Your task to perform on an android device: toggle notifications settings in the gmail app Image 0: 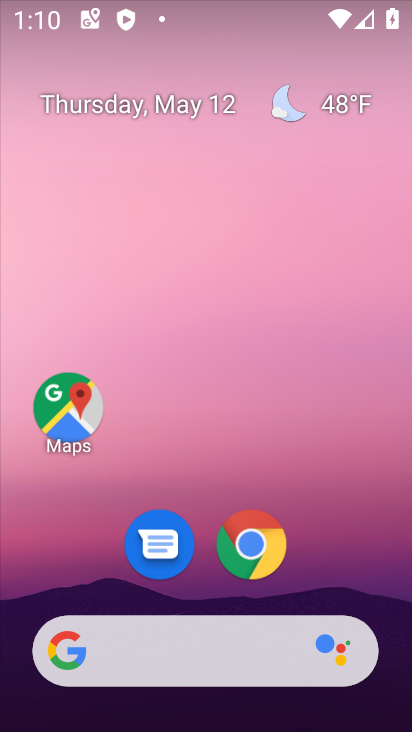
Step 0: drag from (352, 548) to (290, 13)
Your task to perform on an android device: toggle notifications settings in the gmail app Image 1: 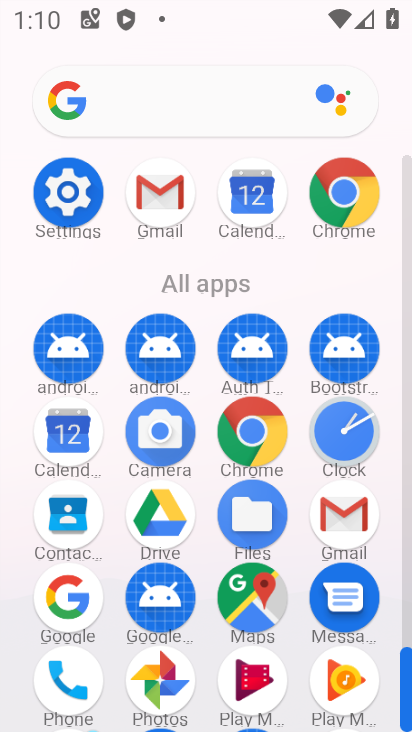
Step 1: drag from (19, 511) to (14, 315)
Your task to perform on an android device: toggle notifications settings in the gmail app Image 2: 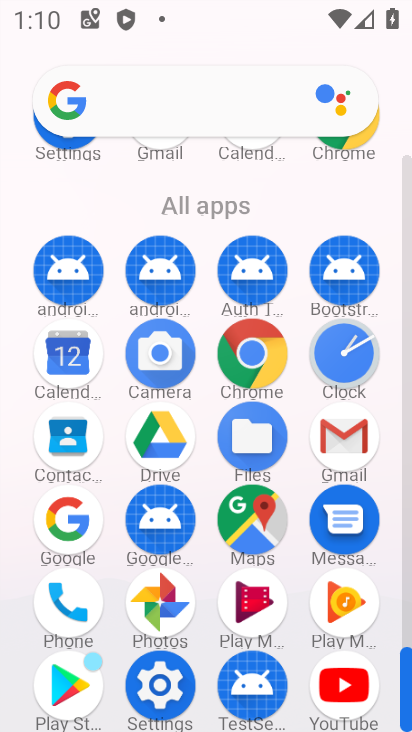
Step 2: click (345, 430)
Your task to perform on an android device: toggle notifications settings in the gmail app Image 3: 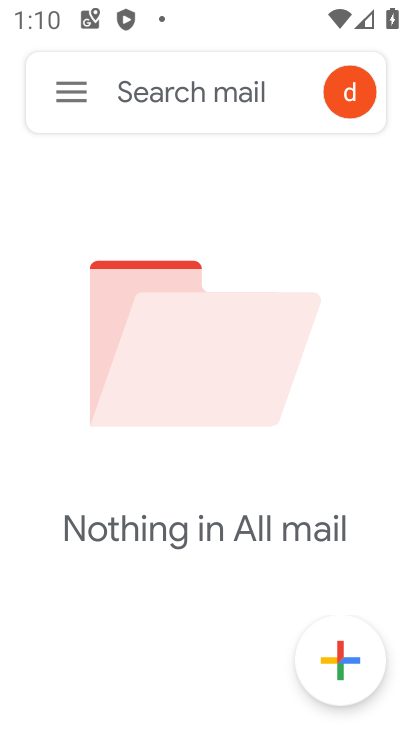
Step 3: click (60, 96)
Your task to perform on an android device: toggle notifications settings in the gmail app Image 4: 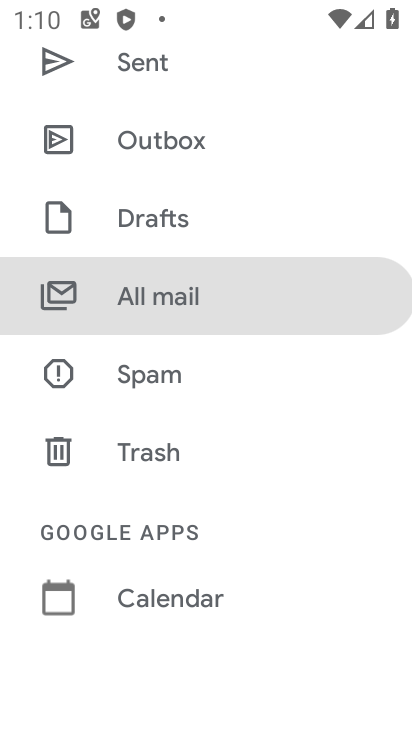
Step 4: drag from (257, 435) to (257, 123)
Your task to perform on an android device: toggle notifications settings in the gmail app Image 5: 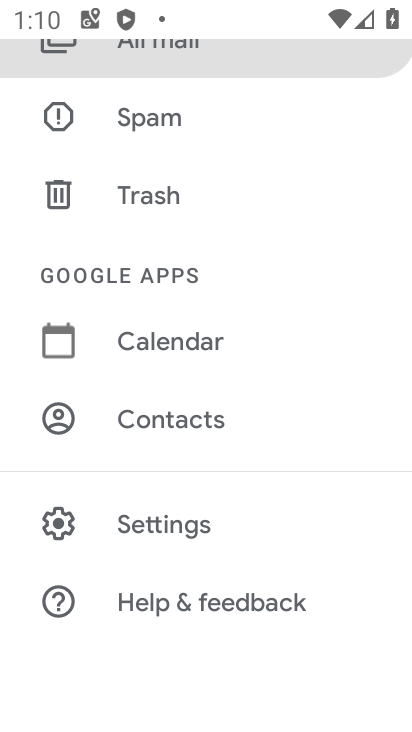
Step 5: drag from (227, 434) to (231, 134)
Your task to perform on an android device: toggle notifications settings in the gmail app Image 6: 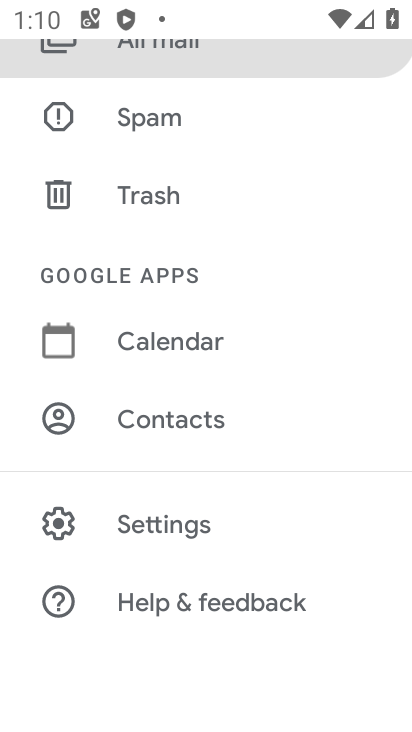
Step 6: click (152, 527)
Your task to perform on an android device: toggle notifications settings in the gmail app Image 7: 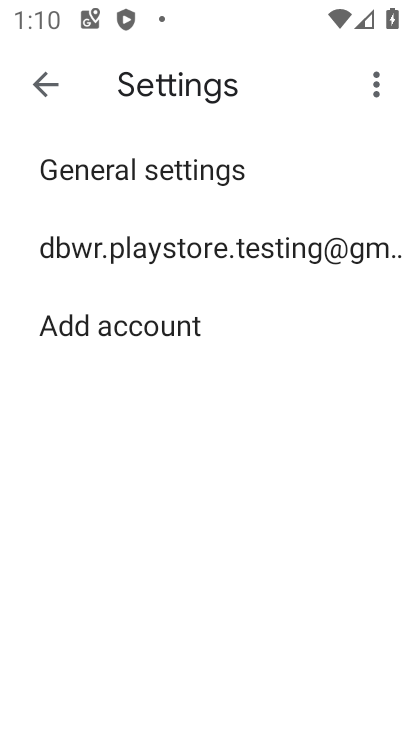
Step 7: click (192, 243)
Your task to perform on an android device: toggle notifications settings in the gmail app Image 8: 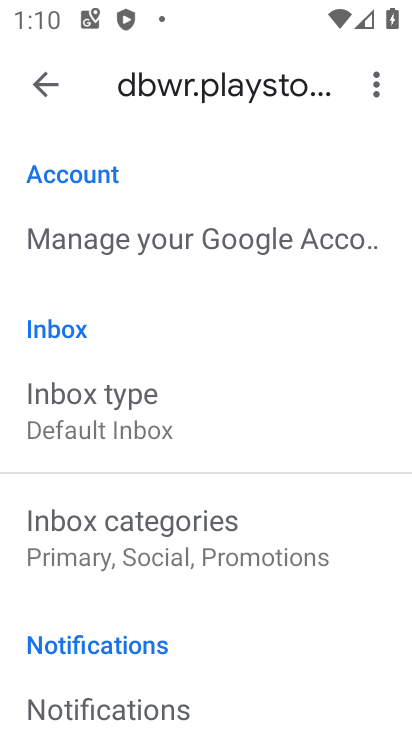
Step 8: drag from (280, 525) to (264, 145)
Your task to perform on an android device: toggle notifications settings in the gmail app Image 9: 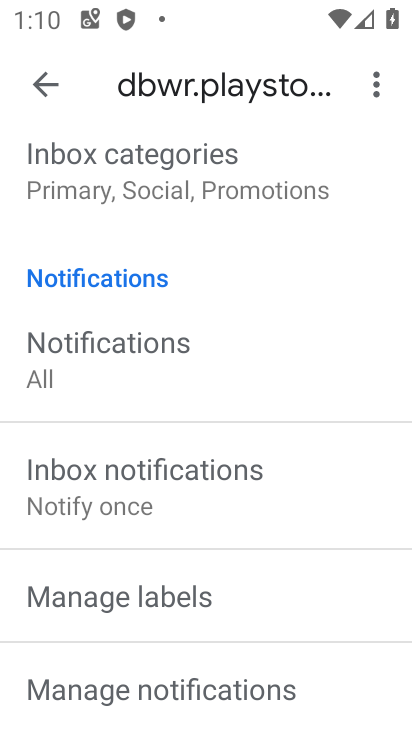
Step 9: drag from (309, 511) to (300, 98)
Your task to perform on an android device: toggle notifications settings in the gmail app Image 10: 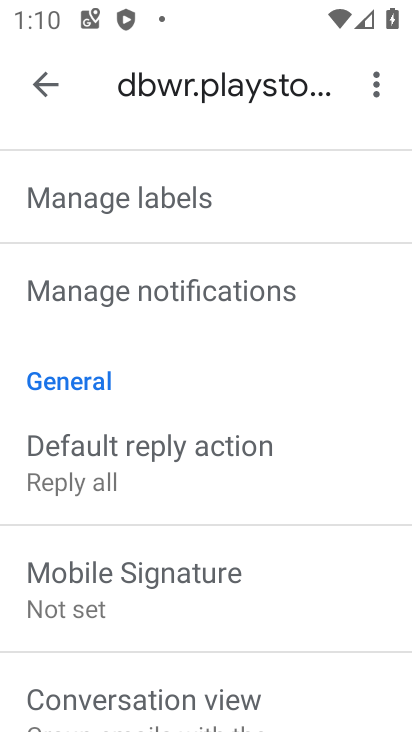
Step 10: drag from (237, 439) to (233, 201)
Your task to perform on an android device: toggle notifications settings in the gmail app Image 11: 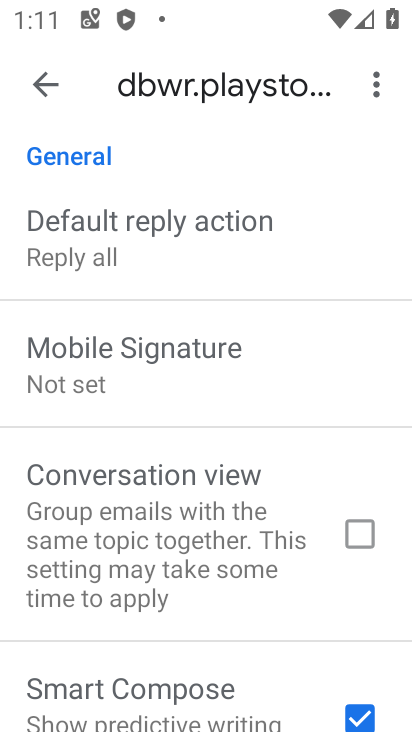
Step 11: drag from (223, 515) to (214, 156)
Your task to perform on an android device: toggle notifications settings in the gmail app Image 12: 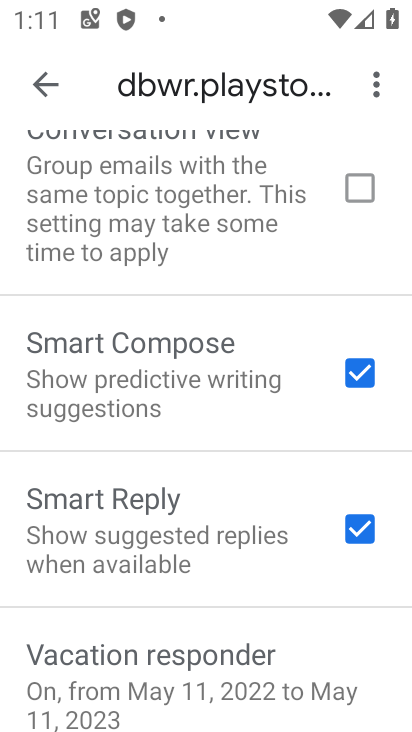
Step 12: drag from (217, 499) to (220, 149)
Your task to perform on an android device: toggle notifications settings in the gmail app Image 13: 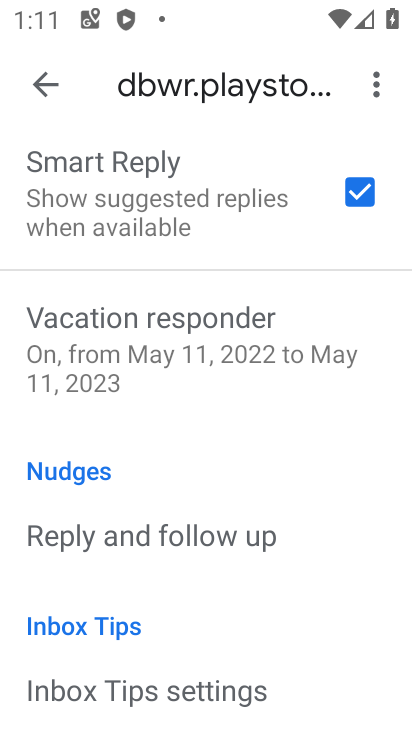
Step 13: drag from (213, 236) to (204, 633)
Your task to perform on an android device: toggle notifications settings in the gmail app Image 14: 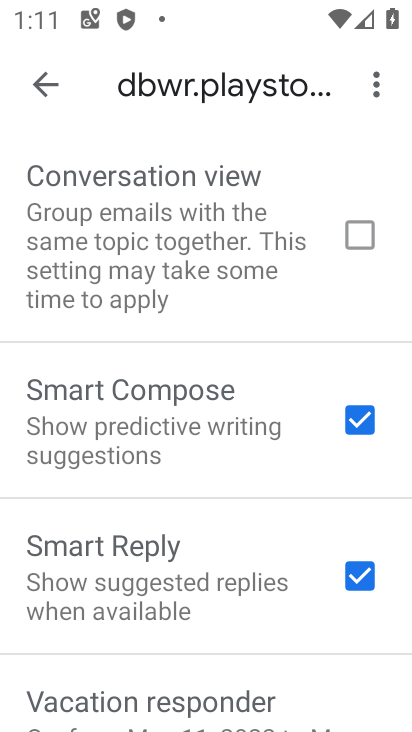
Step 14: drag from (203, 263) to (203, 624)
Your task to perform on an android device: toggle notifications settings in the gmail app Image 15: 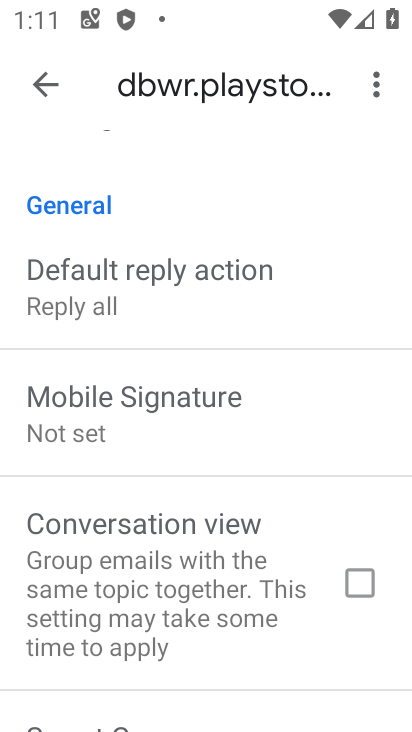
Step 15: drag from (238, 214) to (224, 663)
Your task to perform on an android device: toggle notifications settings in the gmail app Image 16: 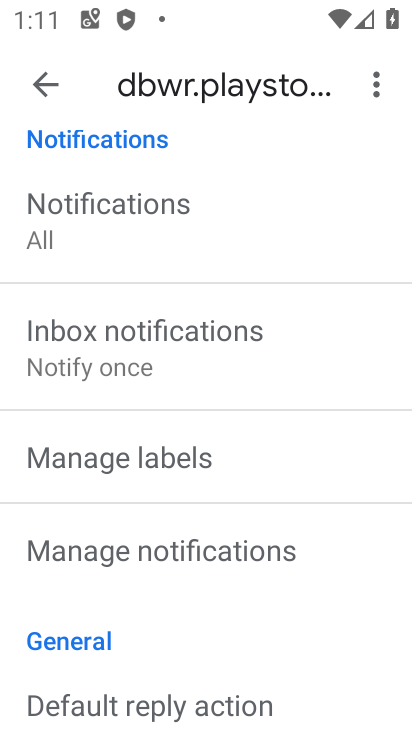
Step 16: click (204, 527)
Your task to perform on an android device: toggle notifications settings in the gmail app Image 17: 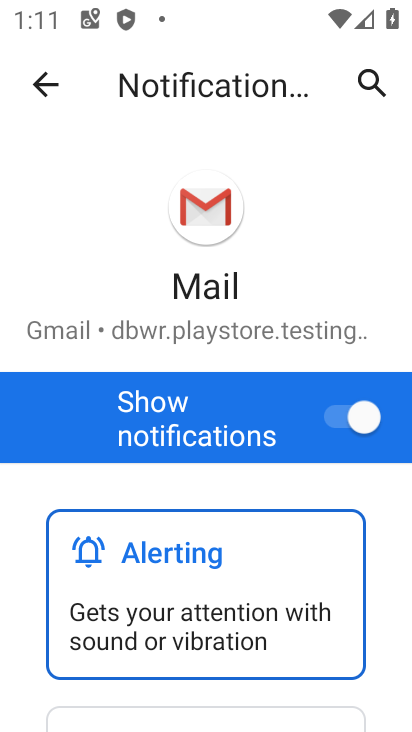
Step 17: click (358, 410)
Your task to perform on an android device: toggle notifications settings in the gmail app Image 18: 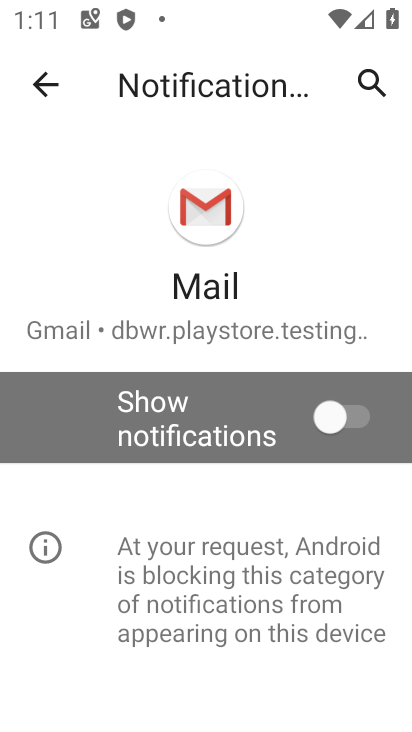
Step 18: task complete